Your task to perform on an android device: turn on priority inbox in the gmail app Image 0: 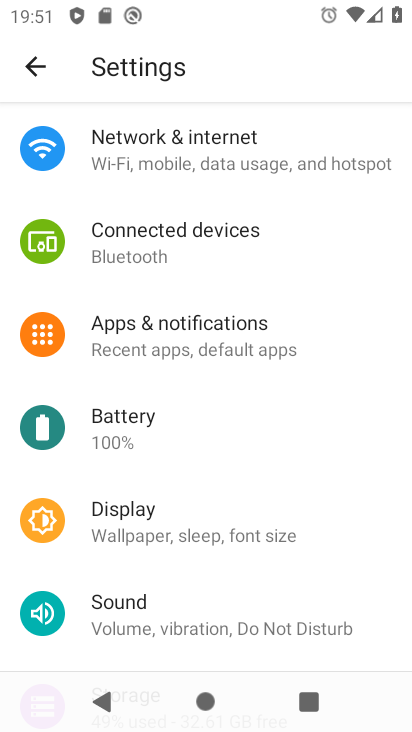
Step 0: press home button
Your task to perform on an android device: turn on priority inbox in the gmail app Image 1: 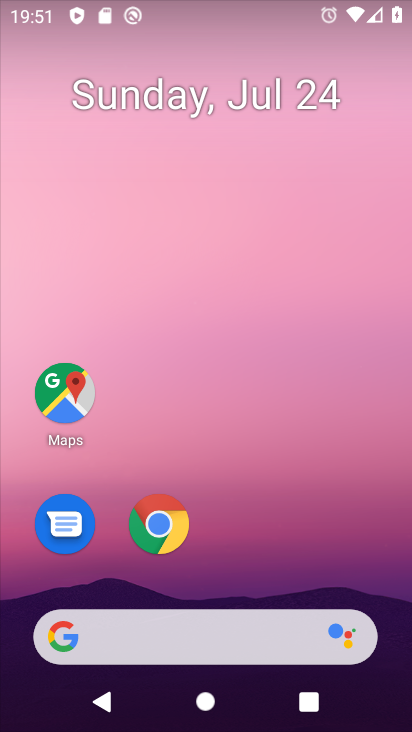
Step 1: drag from (272, 554) to (264, 63)
Your task to perform on an android device: turn on priority inbox in the gmail app Image 2: 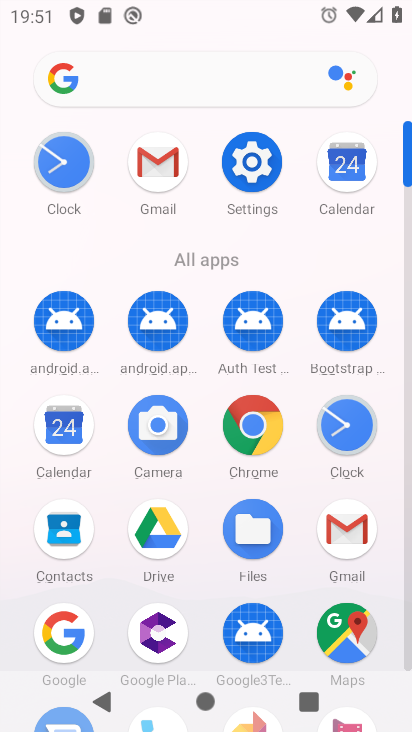
Step 2: click (158, 163)
Your task to perform on an android device: turn on priority inbox in the gmail app Image 3: 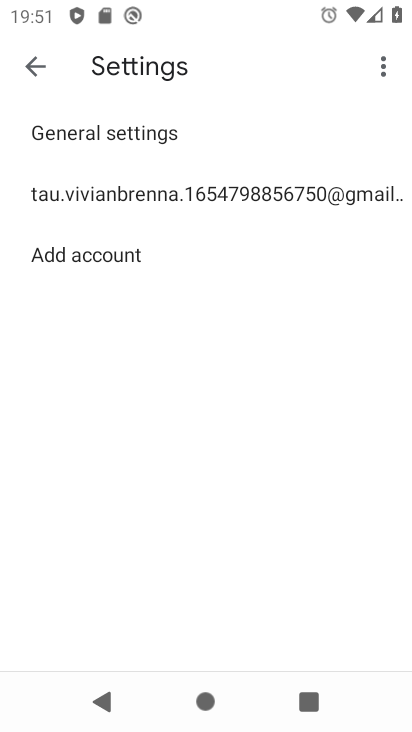
Step 3: click (231, 187)
Your task to perform on an android device: turn on priority inbox in the gmail app Image 4: 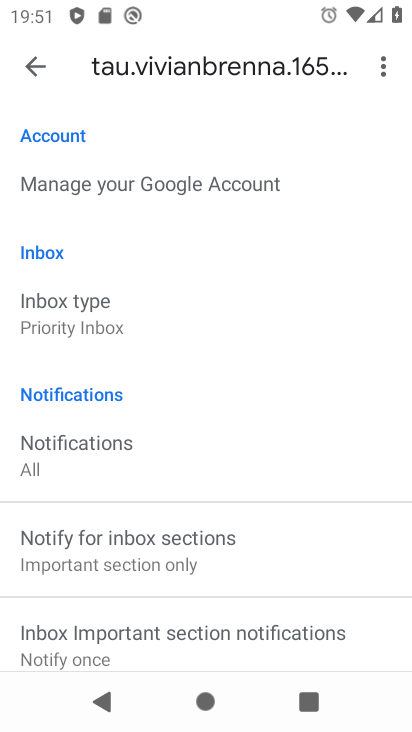
Step 4: click (79, 317)
Your task to perform on an android device: turn on priority inbox in the gmail app Image 5: 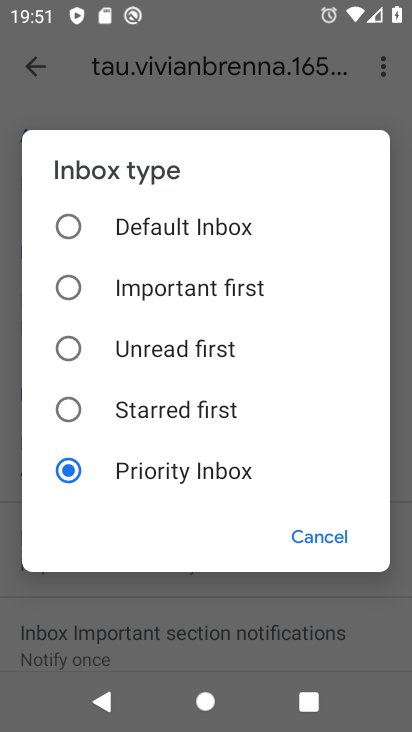
Step 5: click (329, 535)
Your task to perform on an android device: turn on priority inbox in the gmail app Image 6: 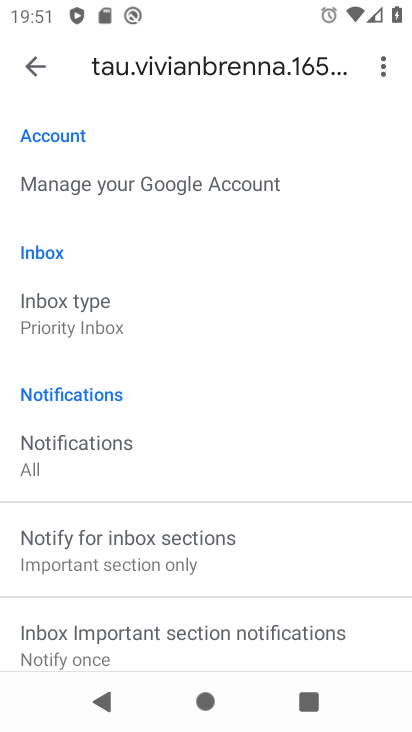
Step 6: task complete